Your task to perform on an android device: Go to eBay Image 0: 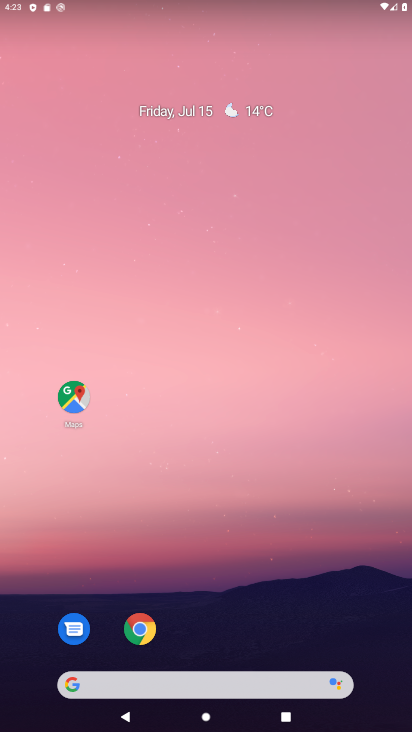
Step 0: click (138, 629)
Your task to perform on an android device: Go to eBay Image 1: 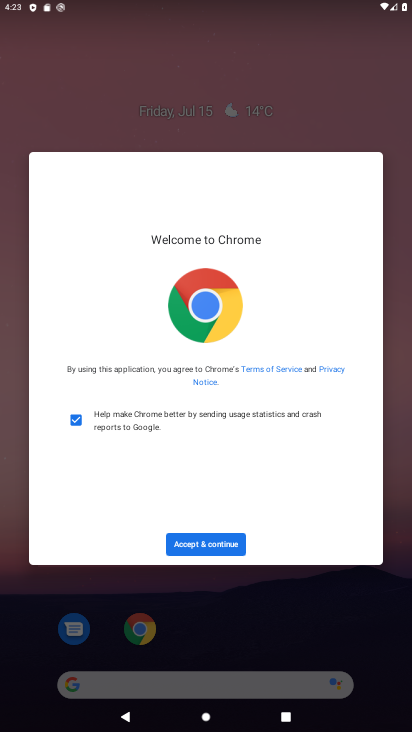
Step 1: click (211, 540)
Your task to perform on an android device: Go to eBay Image 2: 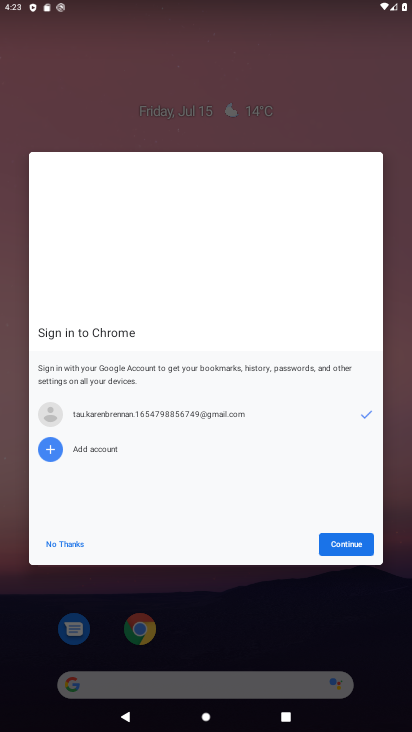
Step 2: click (336, 543)
Your task to perform on an android device: Go to eBay Image 3: 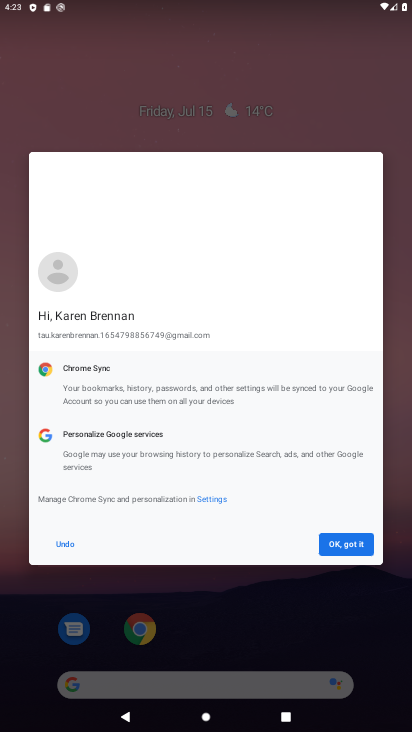
Step 3: click (336, 543)
Your task to perform on an android device: Go to eBay Image 4: 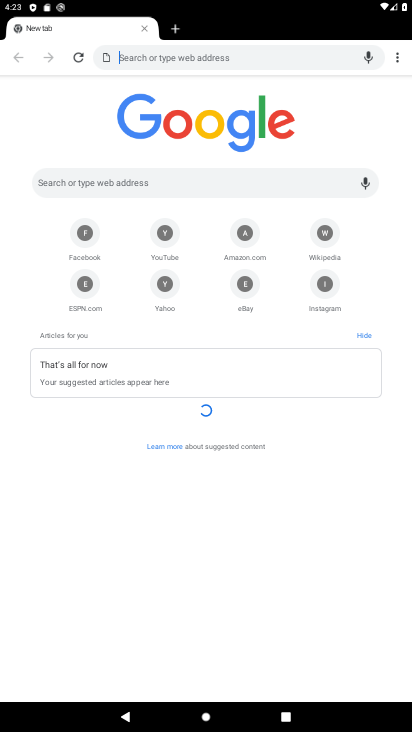
Step 4: click (247, 287)
Your task to perform on an android device: Go to eBay Image 5: 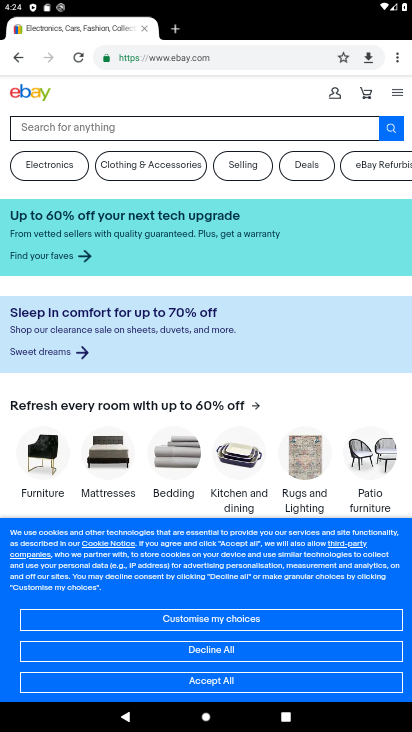
Step 5: task complete